Your task to perform on an android device: open a bookmark in the chrome app Image 0: 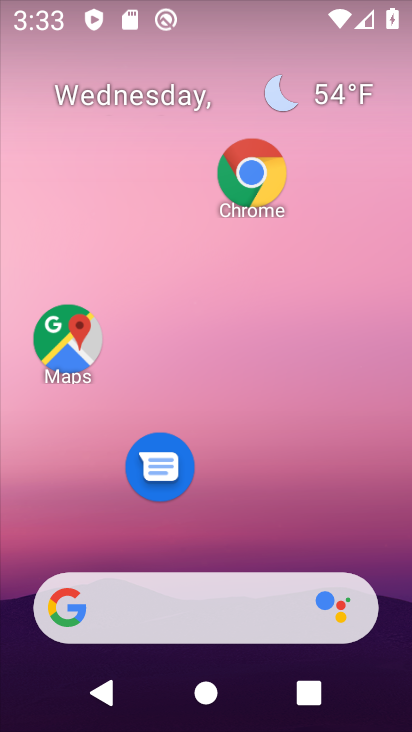
Step 0: click (238, 180)
Your task to perform on an android device: open a bookmark in the chrome app Image 1: 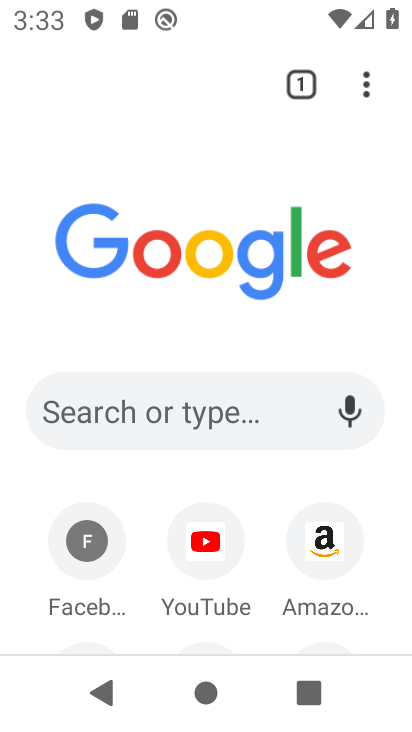
Step 1: task complete